Your task to perform on an android device: Search for sushi restaurants on Maps Image 0: 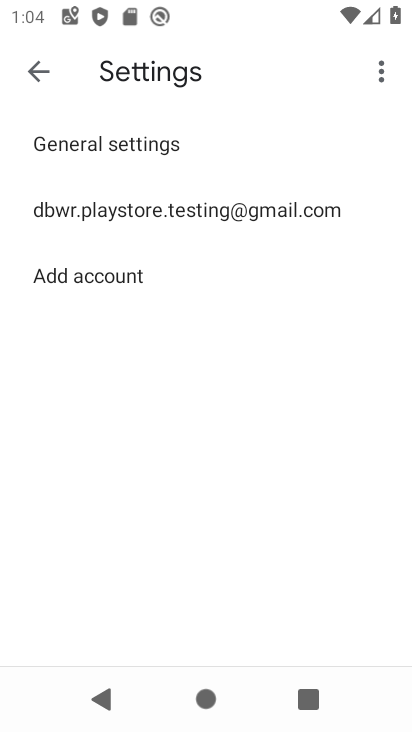
Step 0: press home button
Your task to perform on an android device: Search for sushi restaurants on Maps Image 1: 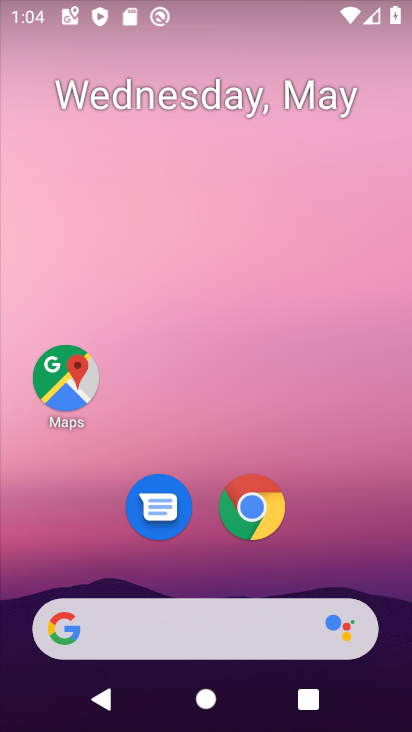
Step 1: drag from (197, 551) to (197, 112)
Your task to perform on an android device: Search for sushi restaurants on Maps Image 2: 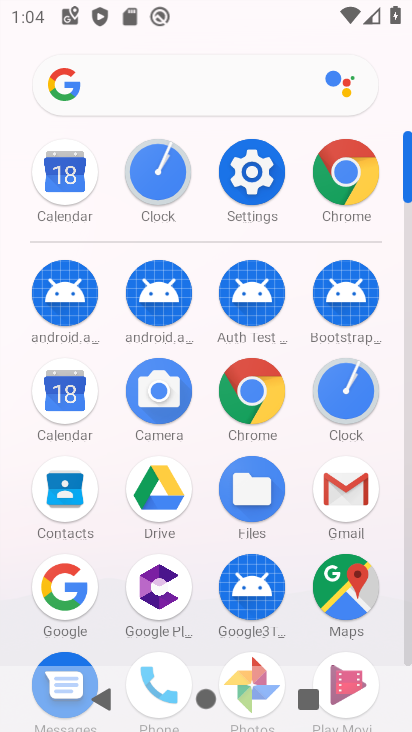
Step 2: click (346, 592)
Your task to perform on an android device: Search for sushi restaurants on Maps Image 3: 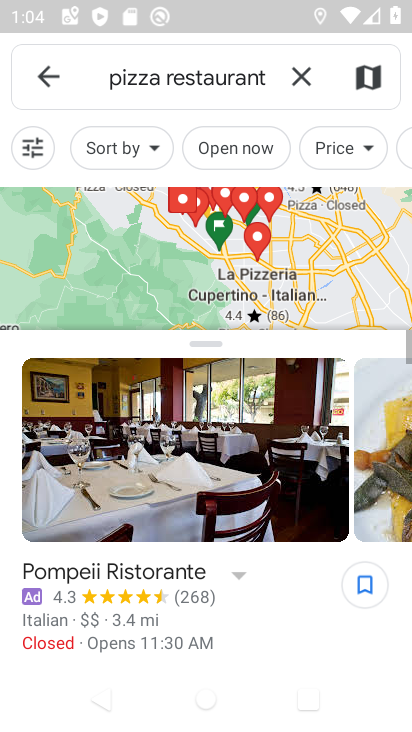
Step 3: click (297, 80)
Your task to perform on an android device: Search for sushi restaurants on Maps Image 4: 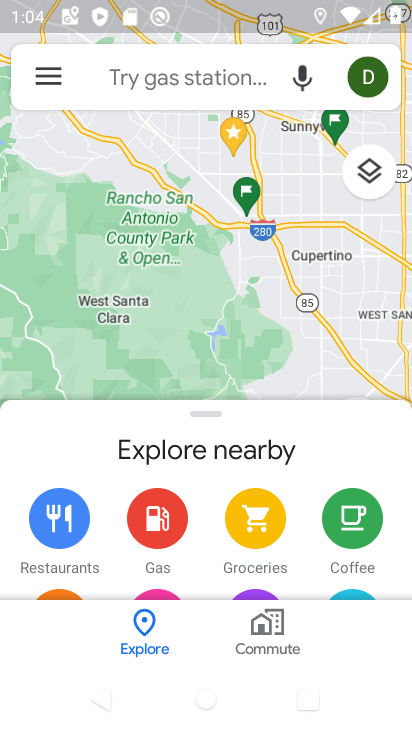
Step 4: click (164, 86)
Your task to perform on an android device: Search for sushi restaurants on Maps Image 5: 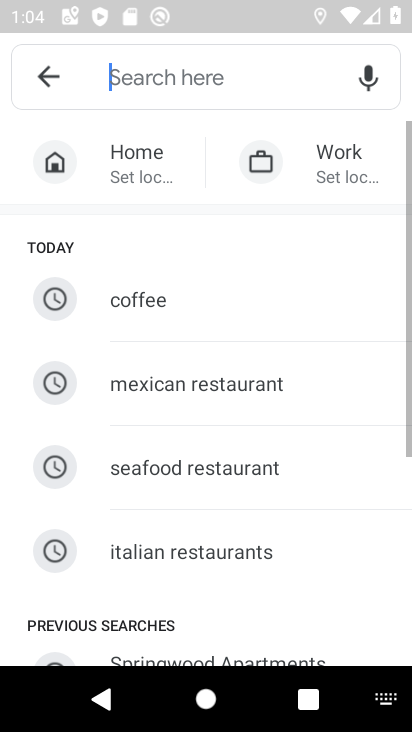
Step 5: drag from (226, 560) to (222, 337)
Your task to perform on an android device: Search for sushi restaurants on Maps Image 6: 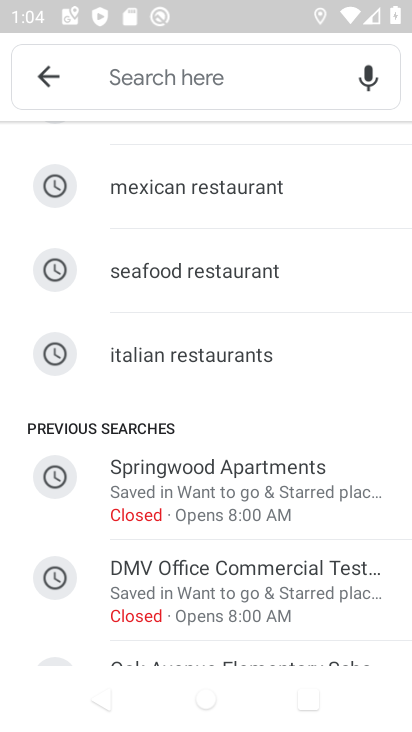
Step 6: drag from (209, 506) to (267, 704)
Your task to perform on an android device: Search for sushi restaurants on Maps Image 7: 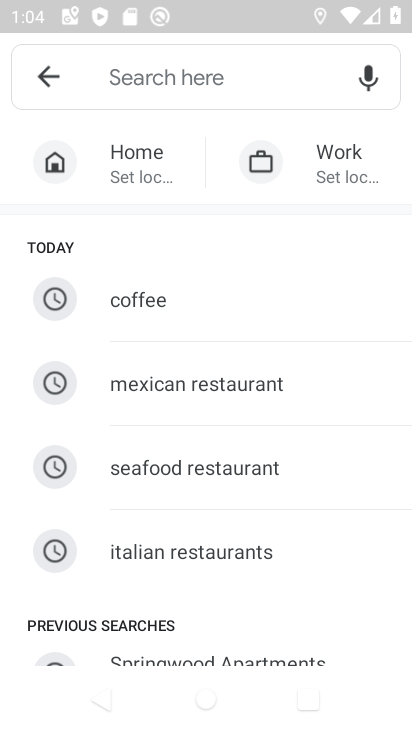
Step 7: click (229, 70)
Your task to perform on an android device: Search for sushi restaurants on Maps Image 8: 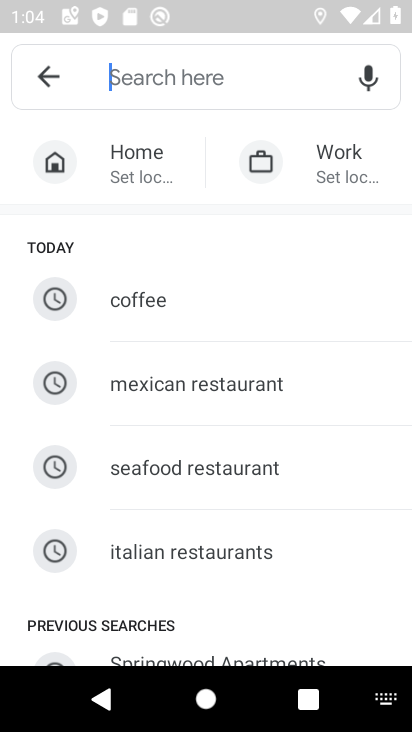
Step 8: type "sushi restaurants"
Your task to perform on an android device: Search for sushi restaurants on Maps Image 9: 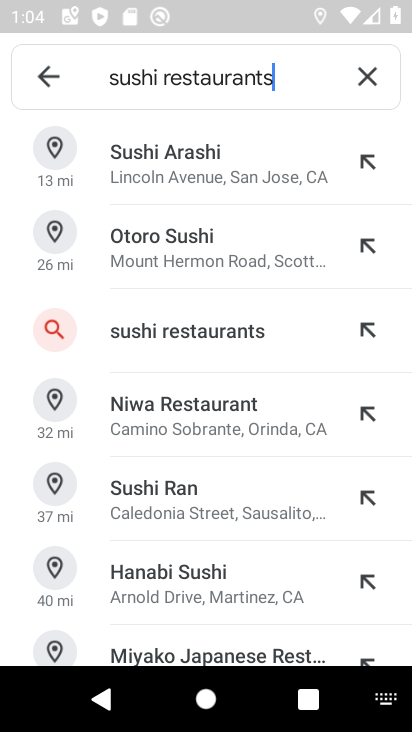
Step 9: click (232, 330)
Your task to perform on an android device: Search for sushi restaurants on Maps Image 10: 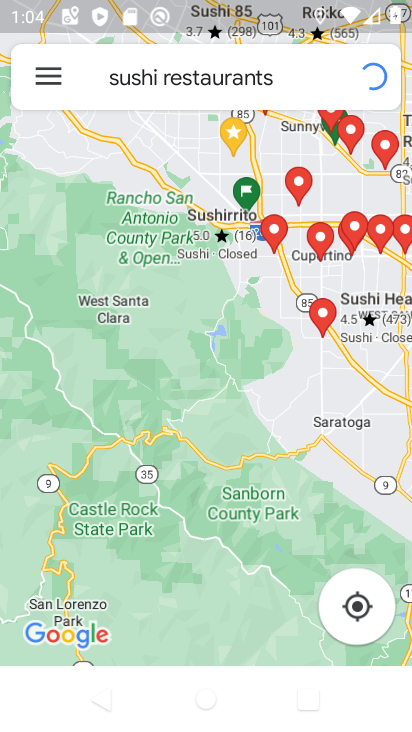
Step 10: task complete